Your task to perform on an android device: turn on sleep mode Image 0: 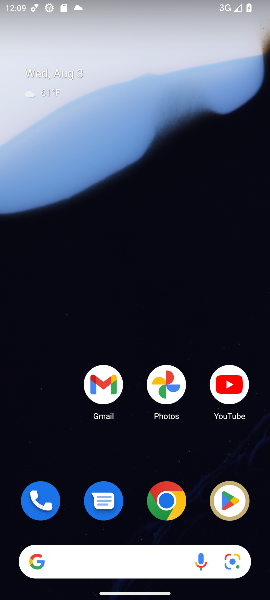
Step 0: click (61, 50)
Your task to perform on an android device: turn on sleep mode Image 1: 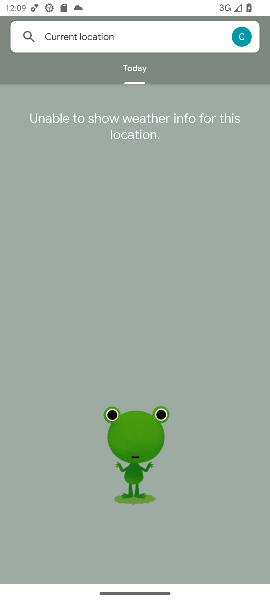
Step 1: press home button
Your task to perform on an android device: turn on sleep mode Image 2: 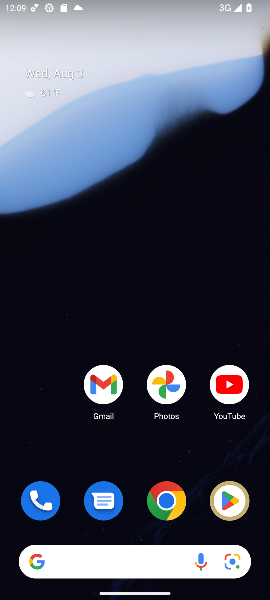
Step 2: drag from (138, 458) to (88, 0)
Your task to perform on an android device: turn on sleep mode Image 3: 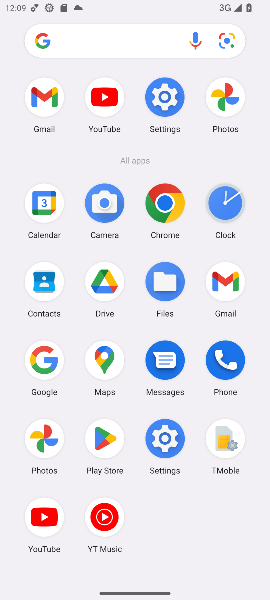
Step 3: click (166, 428)
Your task to perform on an android device: turn on sleep mode Image 4: 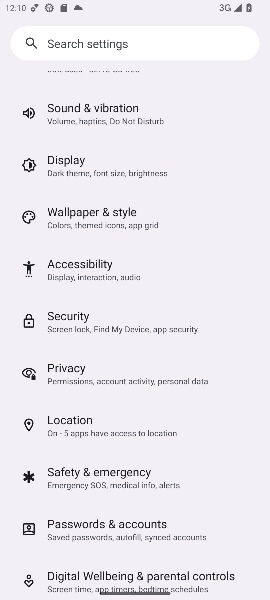
Step 4: drag from (91, 121) to (129, 353)
Your task to perform on an android device: turn on sleep mode Image 5: 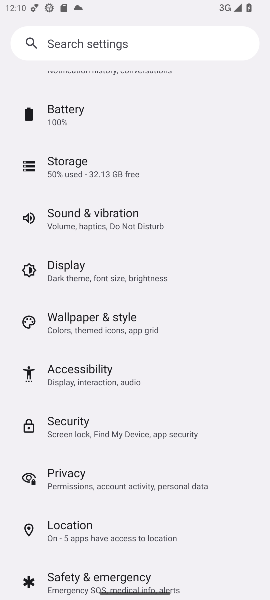
Step 5: drag from (116, 192) to (130, 379)
Your task to perform on an android device: turn on sleep mode Image 6: 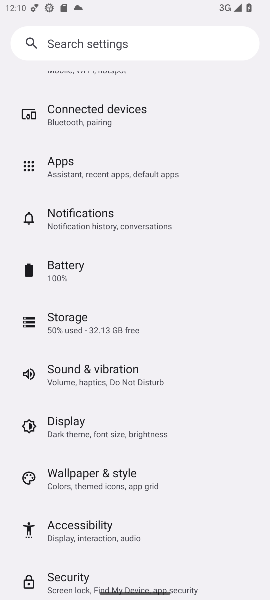
Step 6: drag from (99, 146) to (127, 379)
Your task to perform on an android device: turn on sleep mode Image 7: 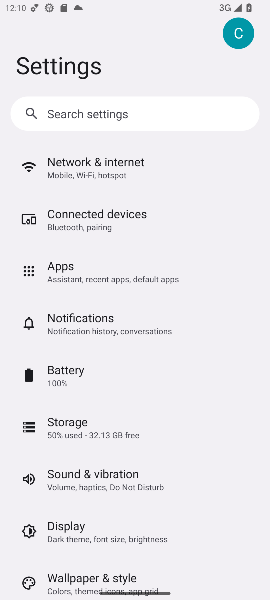
Step 7: click (123, 535)
Your task to perform on an android device: turn on sleep mode Image 8: 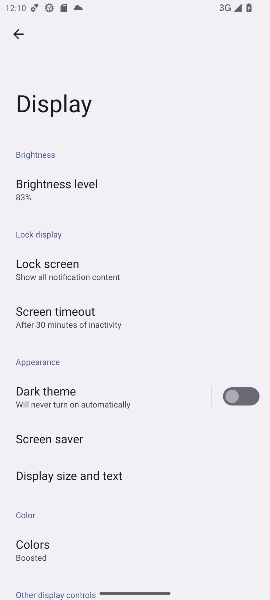
Step 8: task complete